Your task to perform on an android device: find snoozed emails in the gmail app Image 0: 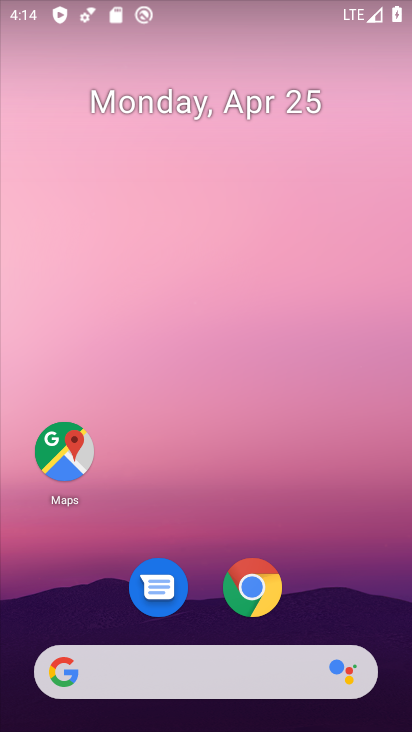
Step 0: drag from (364, 613) to (395, 1)
Your task to perform on an android device: find snoozed emails in the gmail app Image 1: 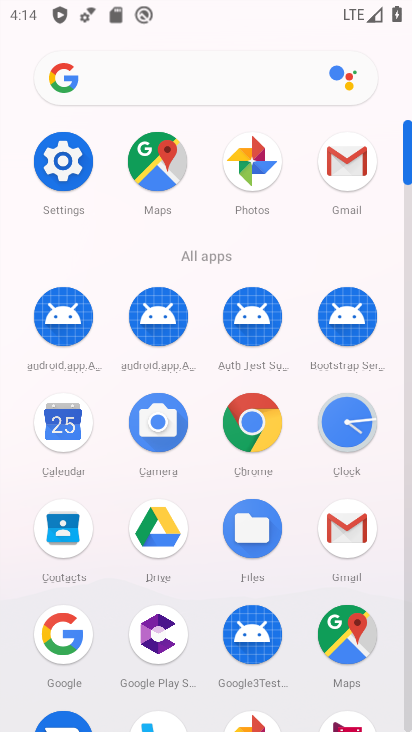
Step 1: click (329, 174)
Your task to perform on an android device: find snoozed emails in the gmail app Image 2: 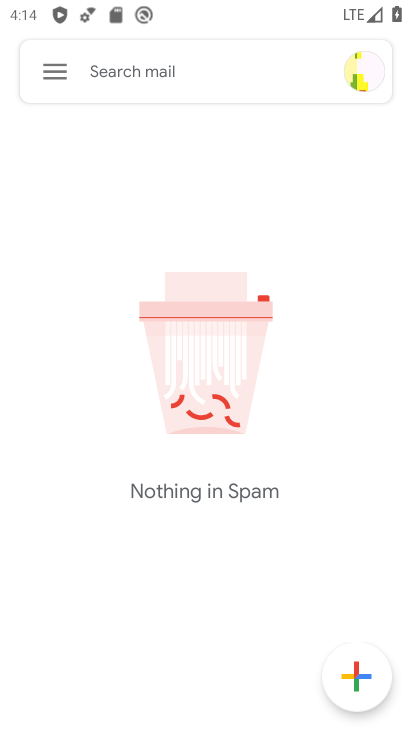
Step 2: click (51, 60)
Your task to perform on an android device: find snoozed emails in the gmail app Image 3: 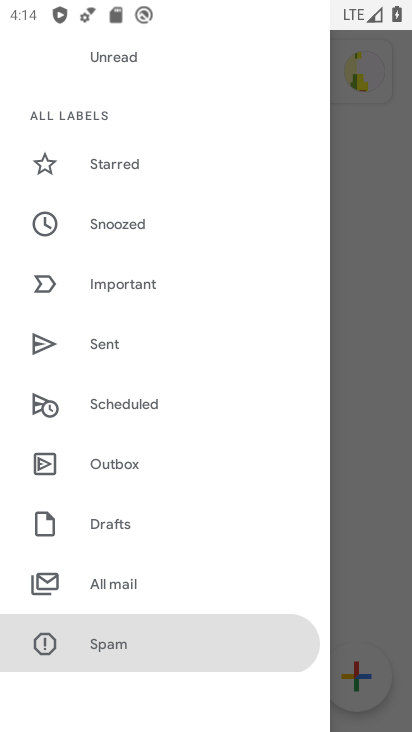
Step 3: click (116, 238)
Your task to perform on an android device: find snoozed emails in the gmail app Image 4: 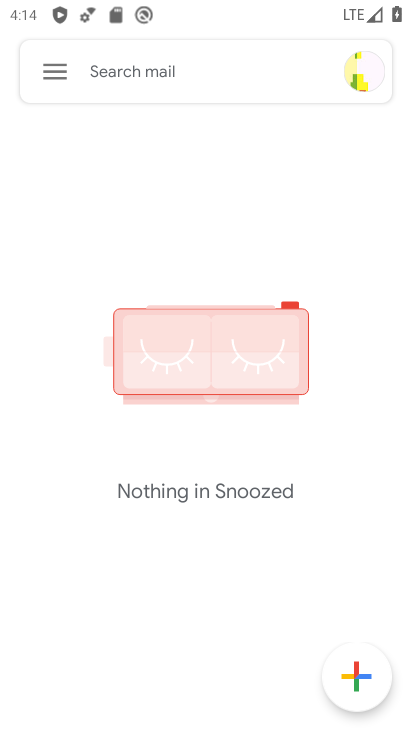
Step 4: task complete